Your task to perform on an android device: change the upload size in google photos Image 0: 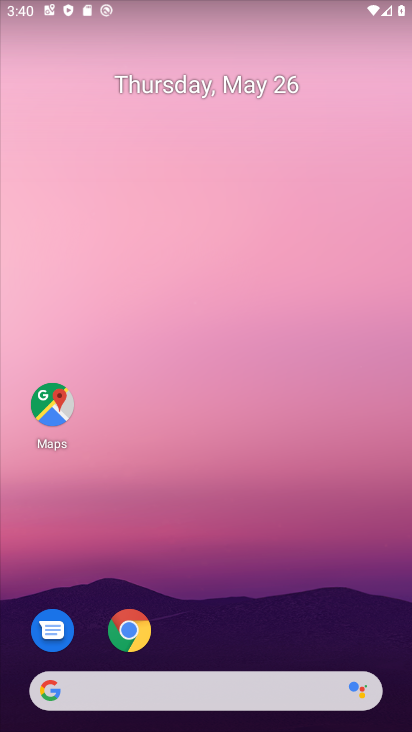
Step 0: drag from (243, 605) to (192, 130)
Your task to perform on an android device: change the upload size in google photos Image 1: 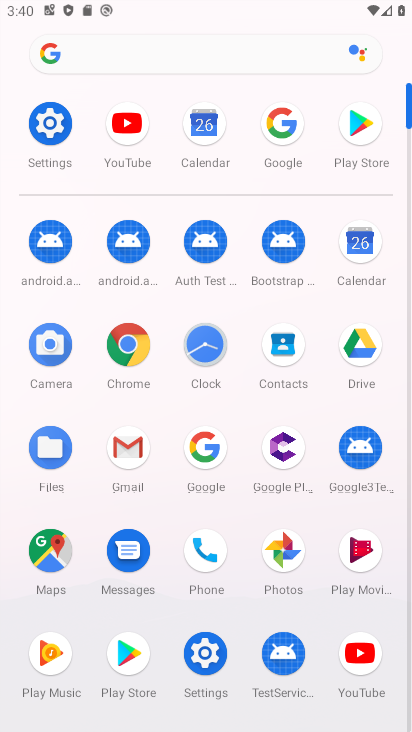
Step 1: click (283, 551)
Your task to perform on an android device: change the upload size in google photos Image 2: 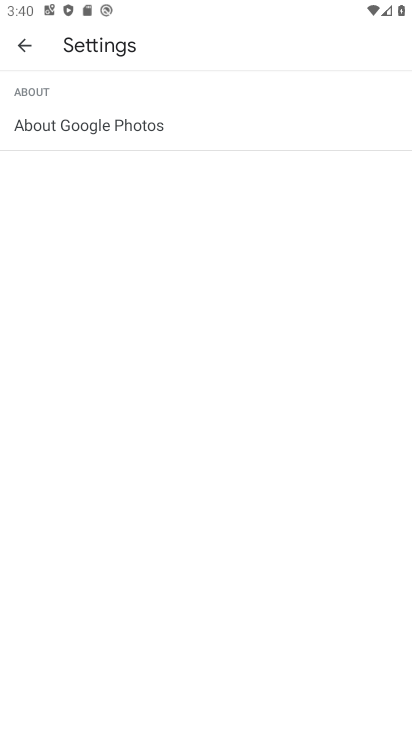
Step 2: click (18, 42)
Your task to perform on an android device: change the upload size in google photos Image 3: 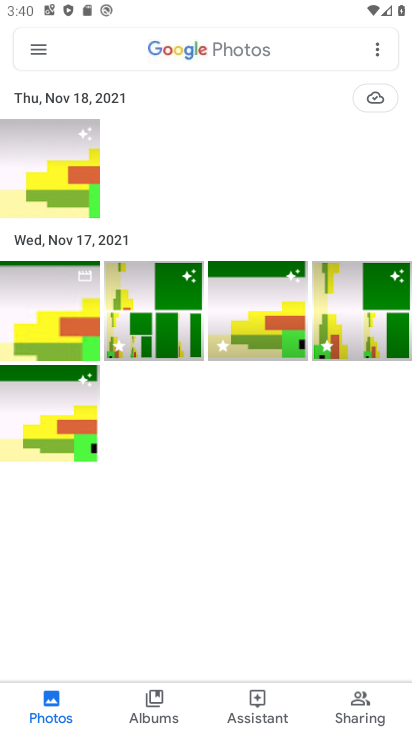
Step 3: click (18, 42)
Your task to perform on an android device: change the upload size in google photos Image 4: 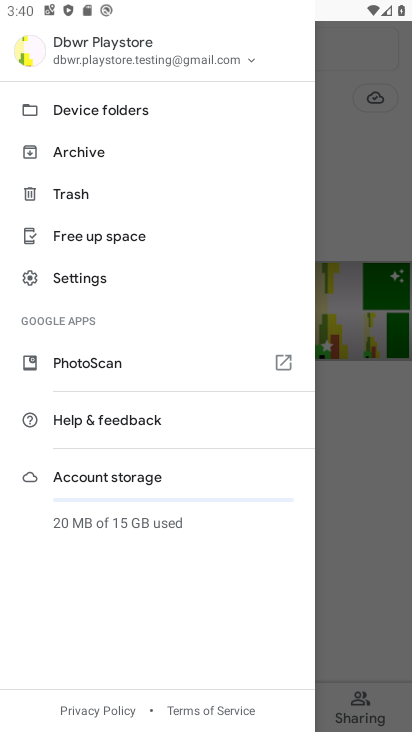
Step 4: click (75, 279)
Your task to perform on an android device: change the upload size in google photos Image 5: 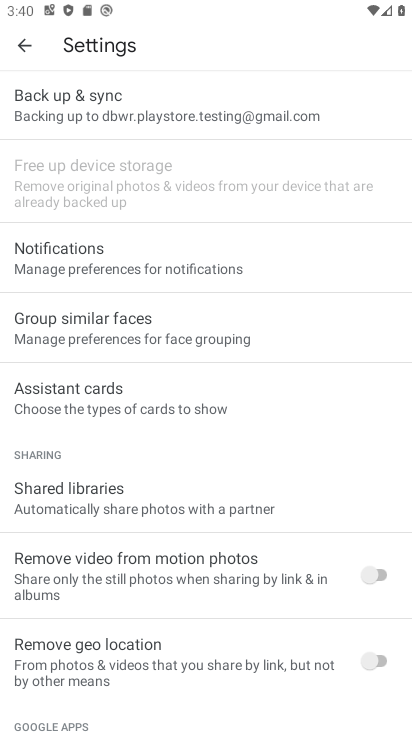
Step 5: click (107, 112)
Your task to perform on an android device: change the upload size in google photos Image 6: 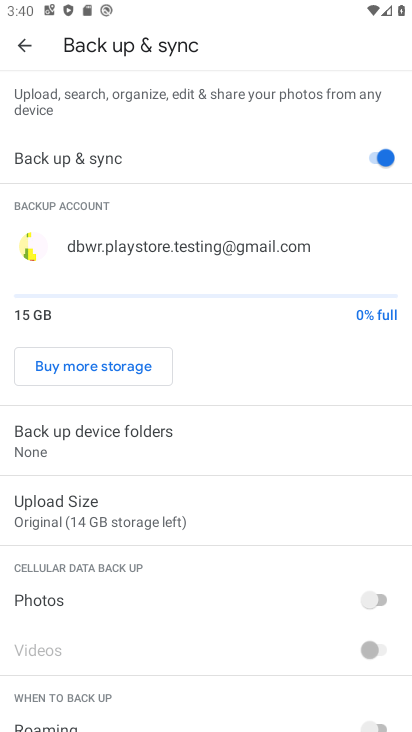
Step 6: click (97, 519)
Your task to perform on an android device: change the upload size in google photos Image 7: 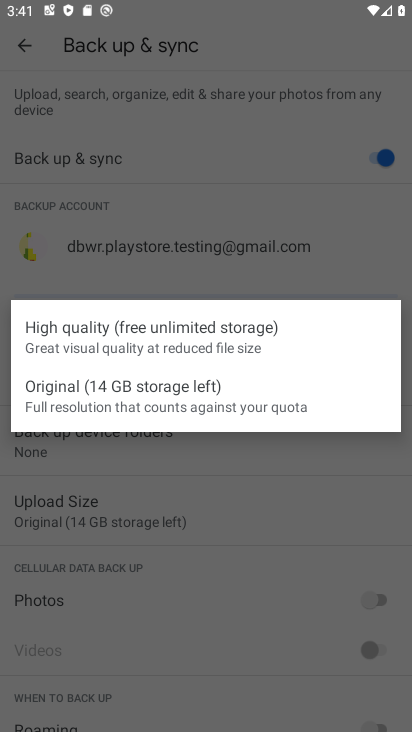
Step 7: click (139, 398)
Your task to perform on an android device: change the upload size in google photos Image 8: 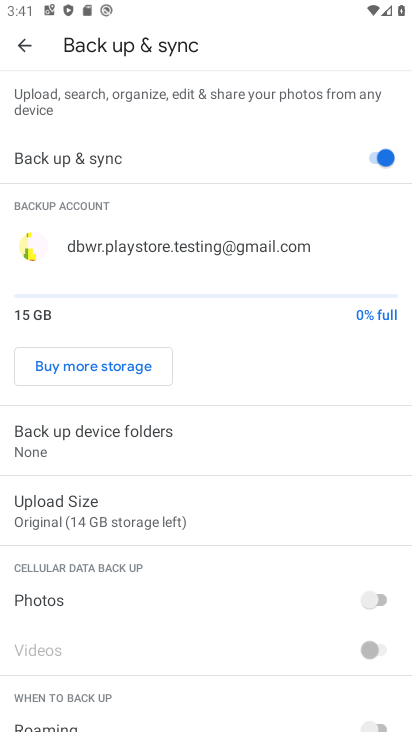
Step 8: task complete